Your task to perform on an android device: Open the Play Movies app and select the watchlist tab. Image 0: 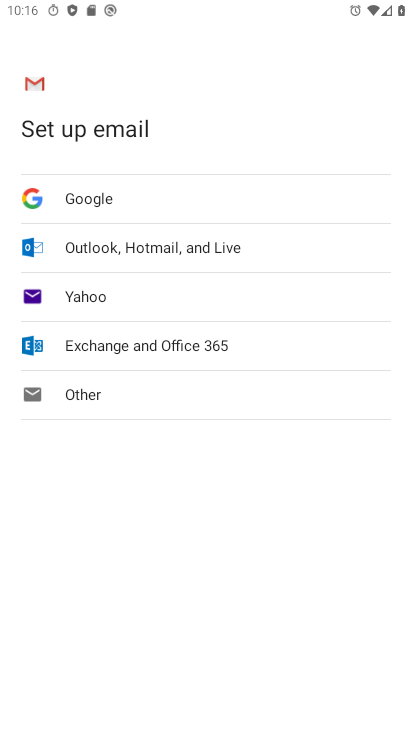
Step 0: press home button
Your task to perform on an android device: Open the Play Movies app and select the watchlist tab. Image 1: 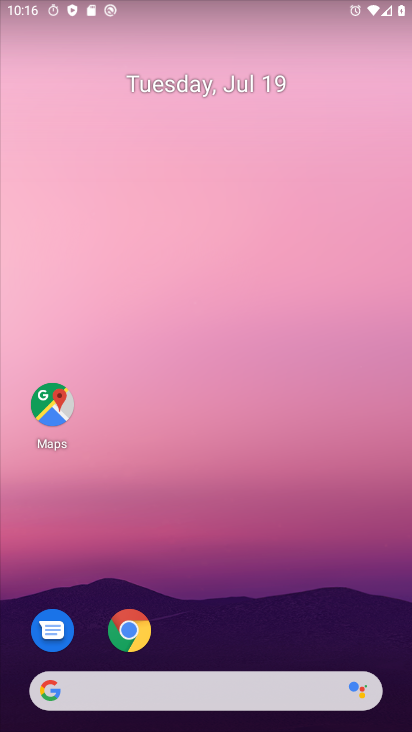
Step 1: drag from (222, 645) to (158, 155)
Your task to perform on an android device: Open the Play Movies app and select the watchlist tab. Image 2: 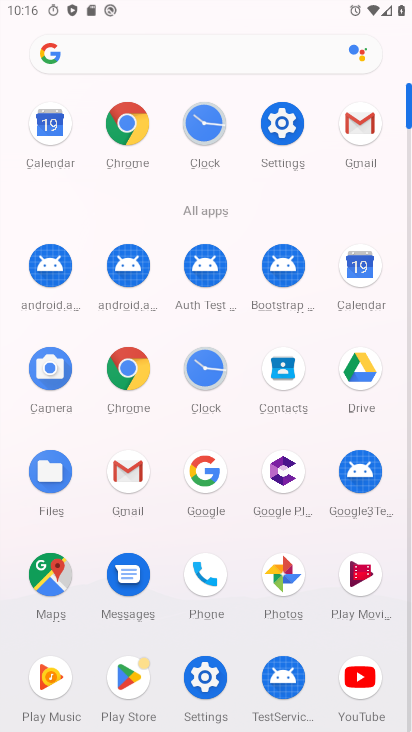
Step 2: click (354, 578)
Your task to perform on an android device: Open the Play Movies app and select the watchlist tab. Image 3: 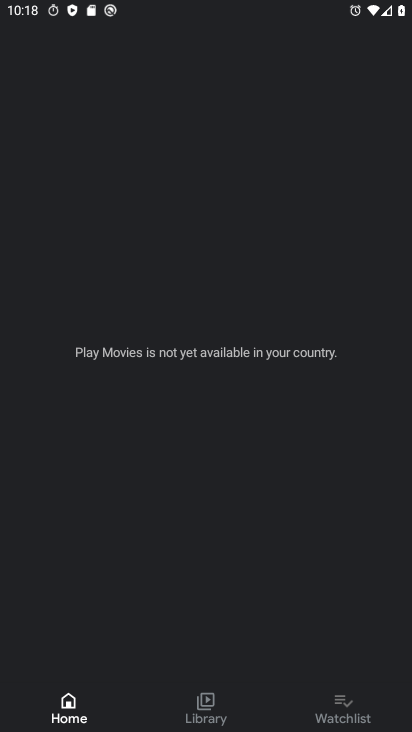
Step 3: press home button
Your task to perform on an android device: Open the Play Movies app and select the watchlist tab. Image 4: 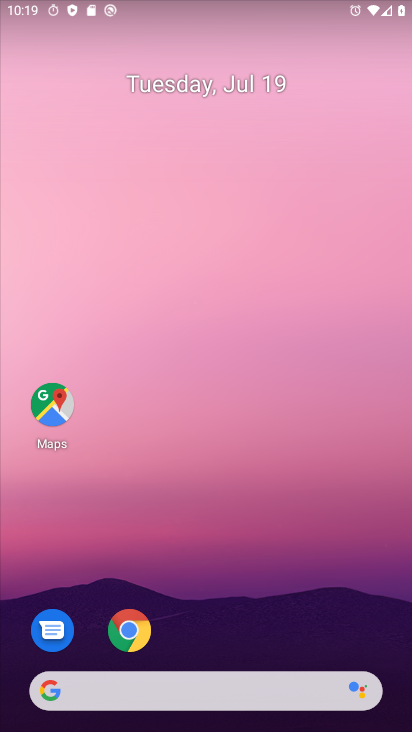
Step 4: press home button
Your task to perform on an android device: Open the Play Movies app and select the watchlist tab. Image 5: 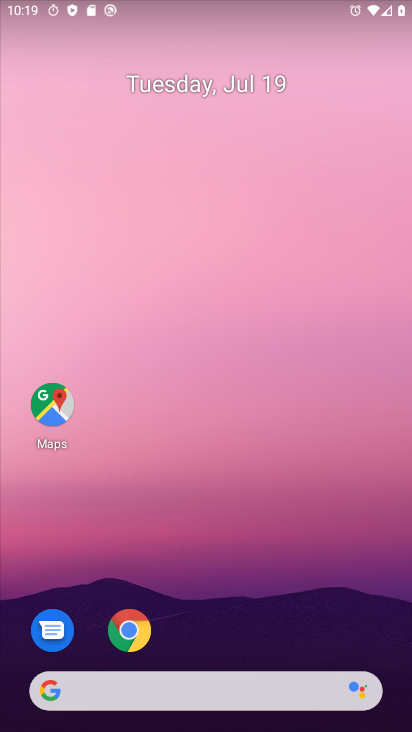
Step 5: drag from (220, 581) to (225, 13)
Your task to perform on an android device: Open the Play Movies app and select the watchlist tab. Image 6: 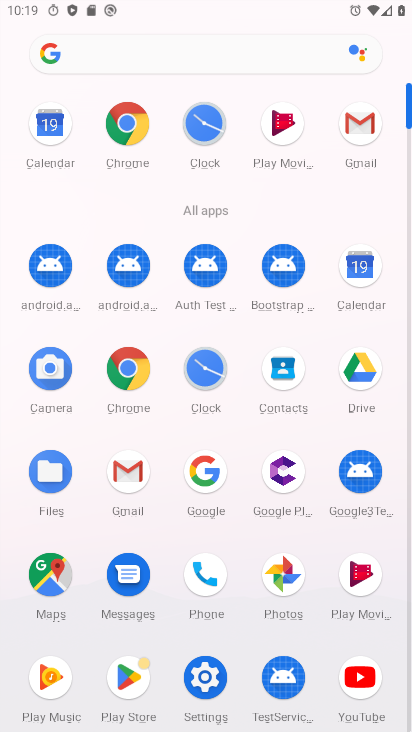
Step 6: click (369, 588)
Your task to perform on an android device: Open the Play Movies app and select the watchlist tab. Image 7: 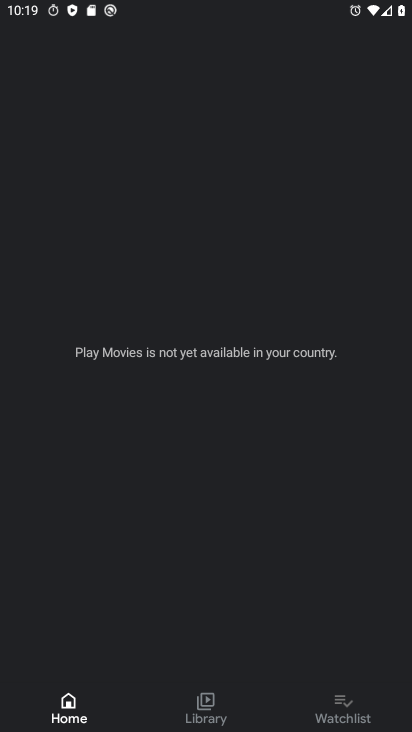
Step 7: click (342, 698)
Your task to perform on an android device: Open the Play Movies app and select the watchlist tab. Image 8: 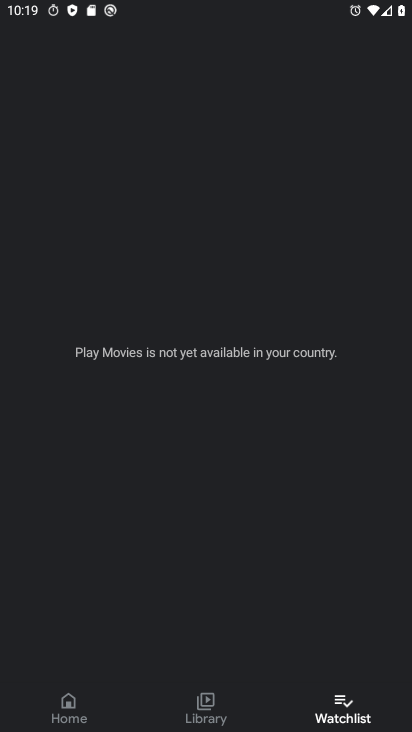
Step 8: task complete